Your task to perform on an android device: Open sound settings Image 0: 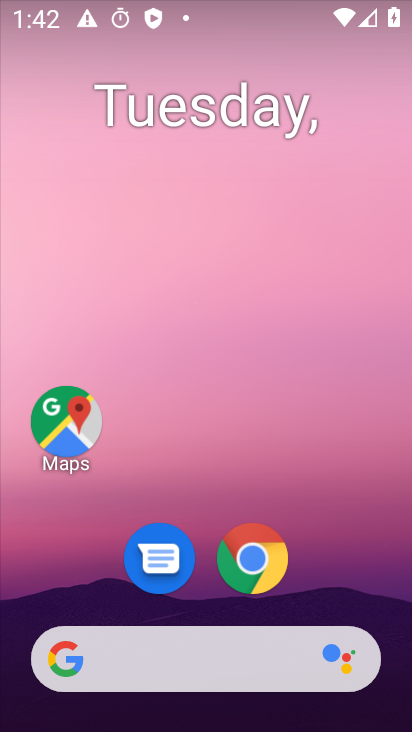
Step 0: drag from (225, 489) to (228, 16)
Your task to perform on an android device: Open sound settings Image 1: 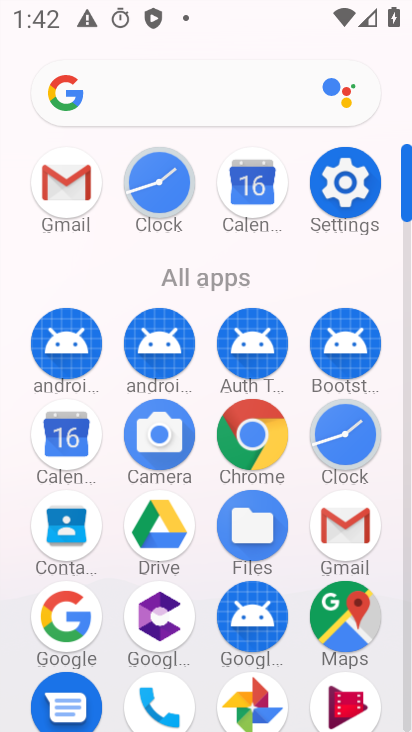
Step 1: click (335, 151)
Your task to perform on an android device: Open sound settings Image 2: 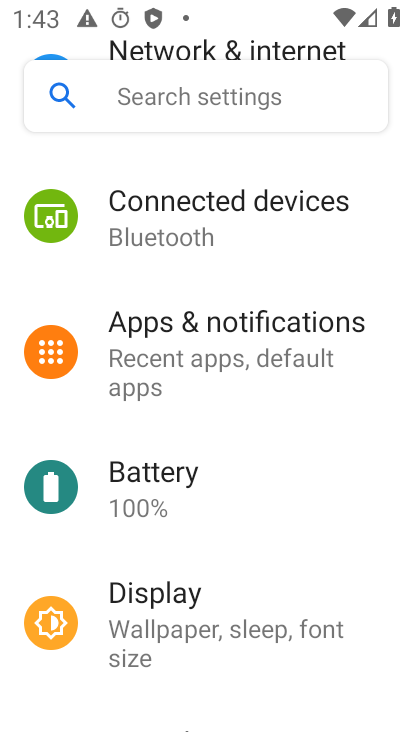
Step 2: drag from (280, 567) to (298, 186)
Your task to perform on an android device: Open sound settings Image 3: 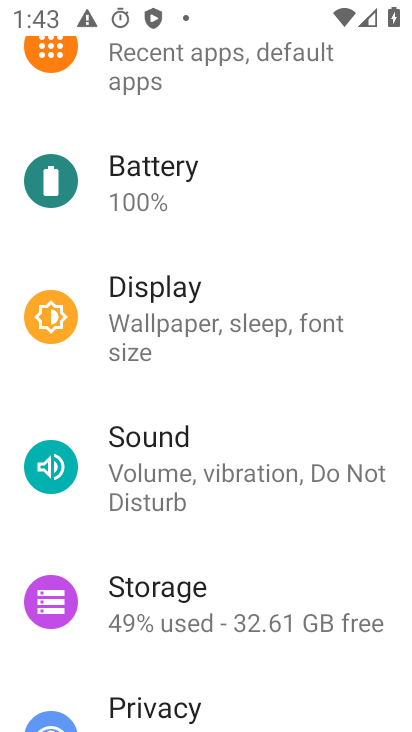
Step 3: click (206, 456)
Your task to perform on an android device: Open sound settings Image 4: 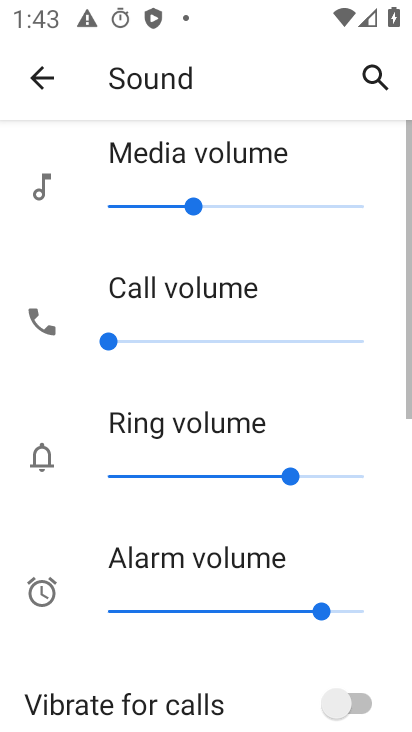
Step 4: task complete